Your task to perform on an android device: toggle javascript in the chrome app Image 0: 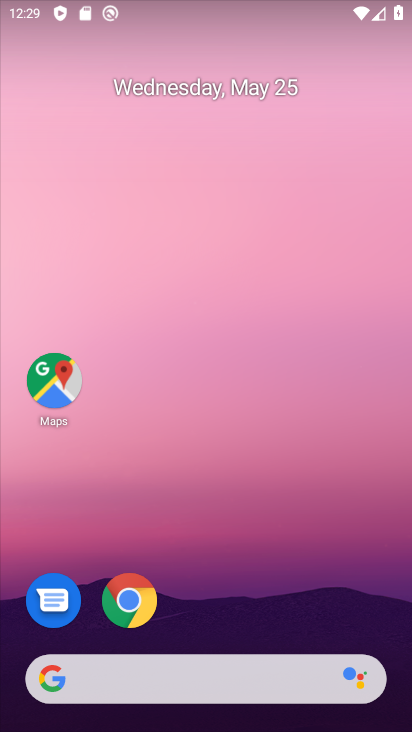
Step 0: click (146, 604)
Your task to perform on an android device: toggle javascript in the chrome app Image 1: 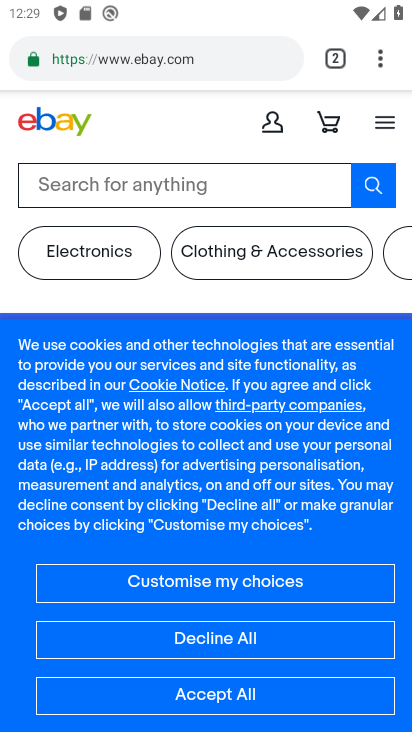
Step 1: click (389, 74)
Your task to perform on an android device: toggle javascript in the chrome app Image 2: 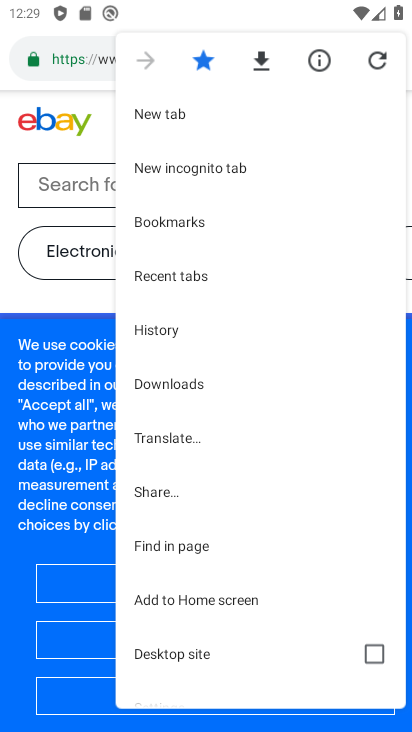
Step 2: drag from (289, 638) to (238, 244)
Your task to perform on an android device: toggle javascript in the chrome app Image 3: 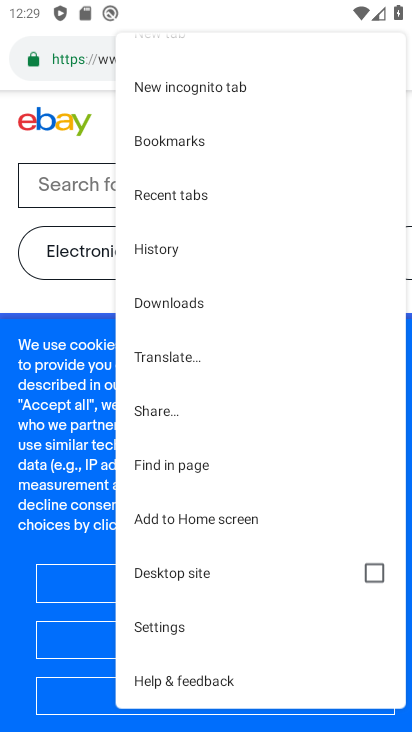
Step 3: click (210, 633)
Your task to perform on an android device: toggle javascript in the chrome app Image 4: 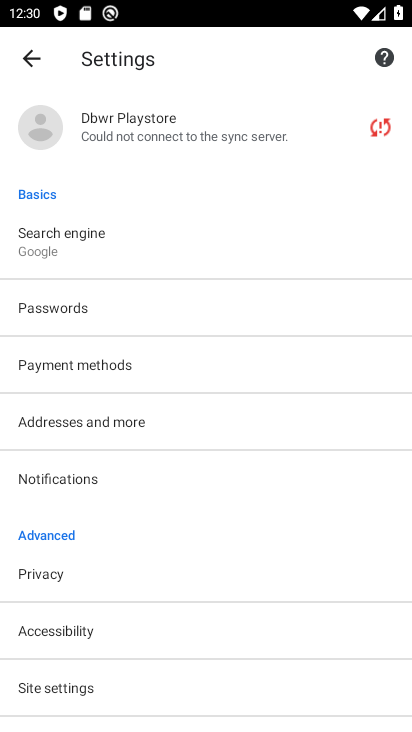
Step 4: drag from (222, 682) to (181, 319)
Your task to perform on an android device: toggle javascript in the chrome app Image 5: 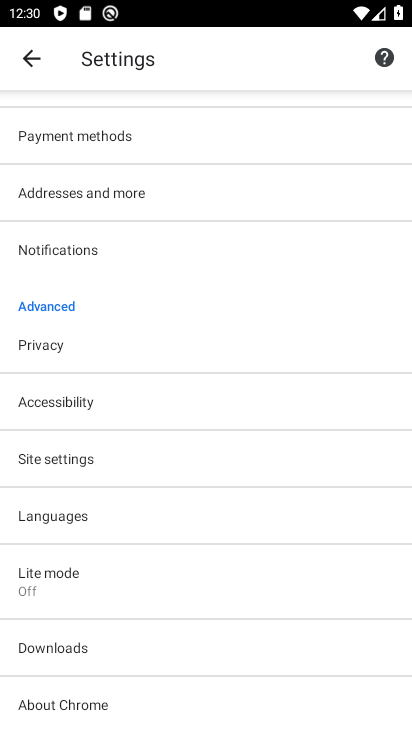
Step 5: click (181, 450)
Your task to perform on an android device: toggle javascript in the chrome app Image 6: 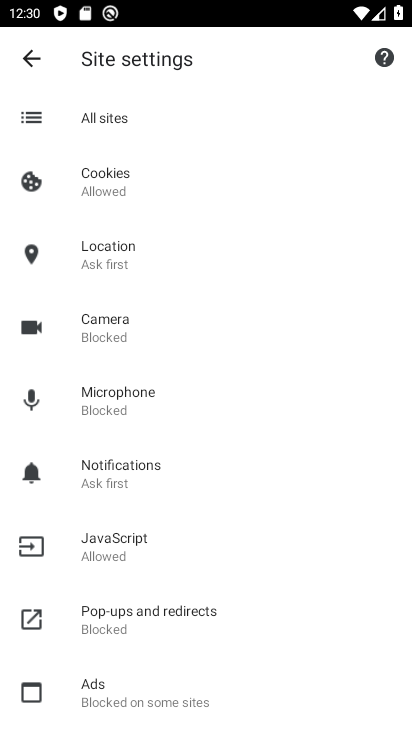
Step 6: click (190, 545)
Your task to perform on an android device: toggle javascript in the chrome app Image 7: 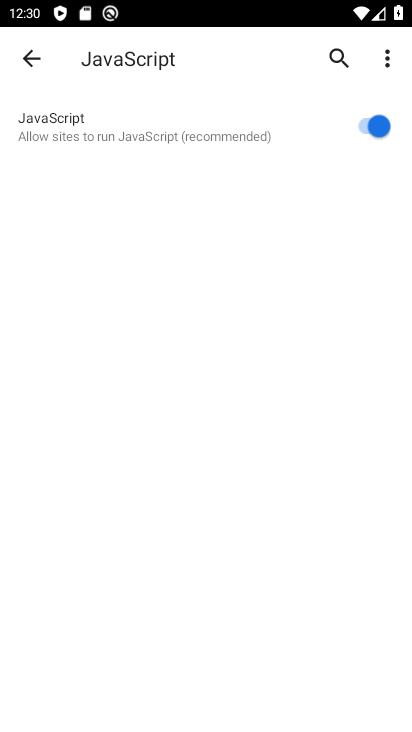
Step 7: task complete